Your task to perform on an android device: open the mobile data screen to see how much data has been used Image 0: 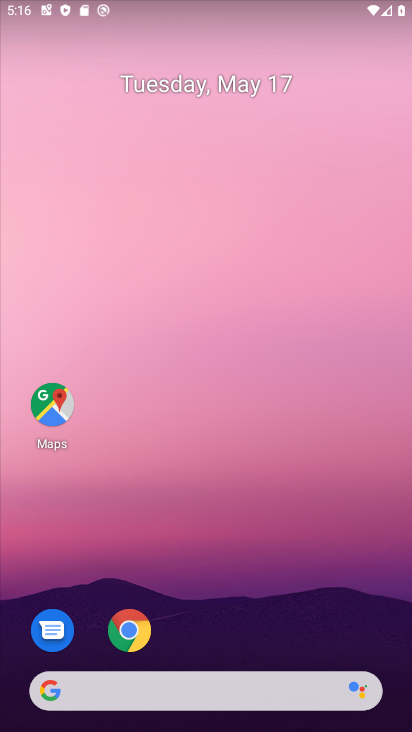
Step 0: drag from (248, 617) to (303, 114)
Your task to perform on an android device: open the mobile data screen to see how much data has been used Image 1: 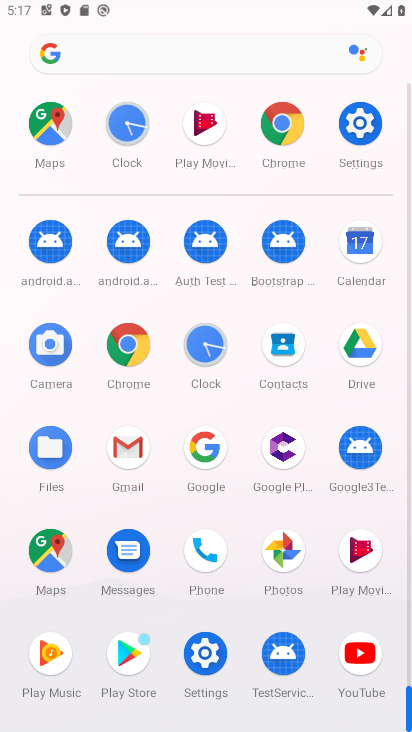
Step 1: click (349, 127)
Your task to perform on an android device: open the mobile data screen to see how much data has been used Image 2: 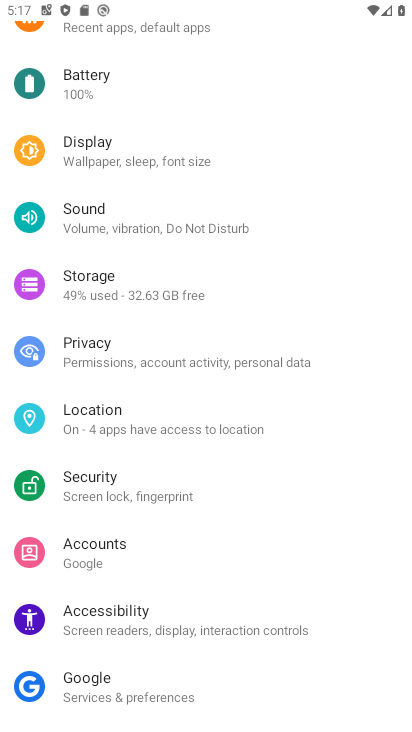
Step 2: drag from (233, 182) to (170, 726)
Your task to perform on an android device: open the mobile data screen to see how much data has been used Image 3: 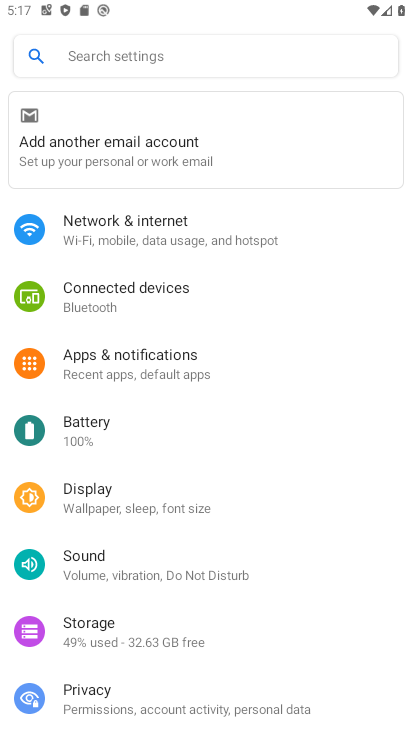
Step 3: click (133, 221)
Your task to perform on an android device: open the mobile data screen to see how much data has been used Image 4: 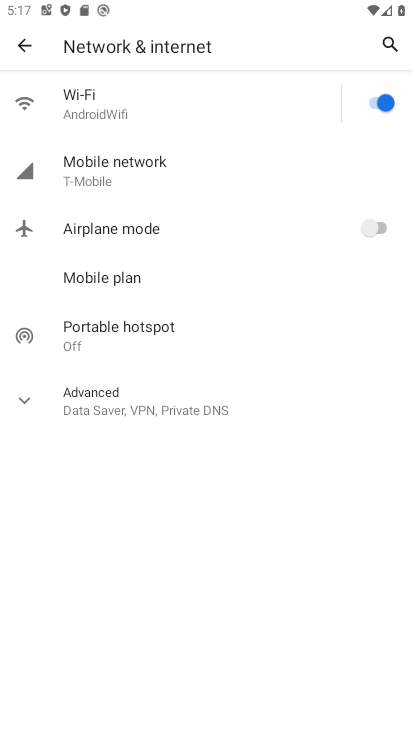
Step 4: click (151, 174)
Your task to perform on an android device: open the mobile data screen to see how much data has been used Image 5: 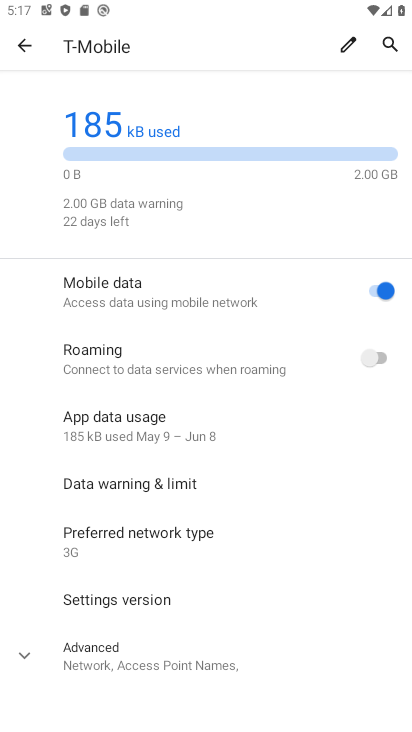
Step 5: task complete